Your task to perform on an android device: turn on data saver in the chrome app Image 0: 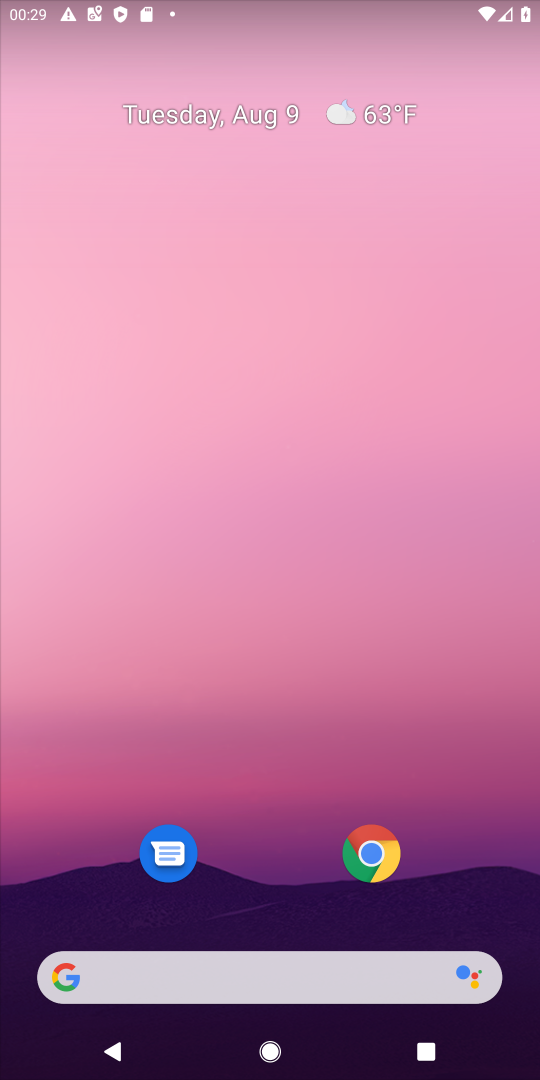
Step 0: press home button
Your task to perform on an android device: turn on data saver in the chrome app Image 1: 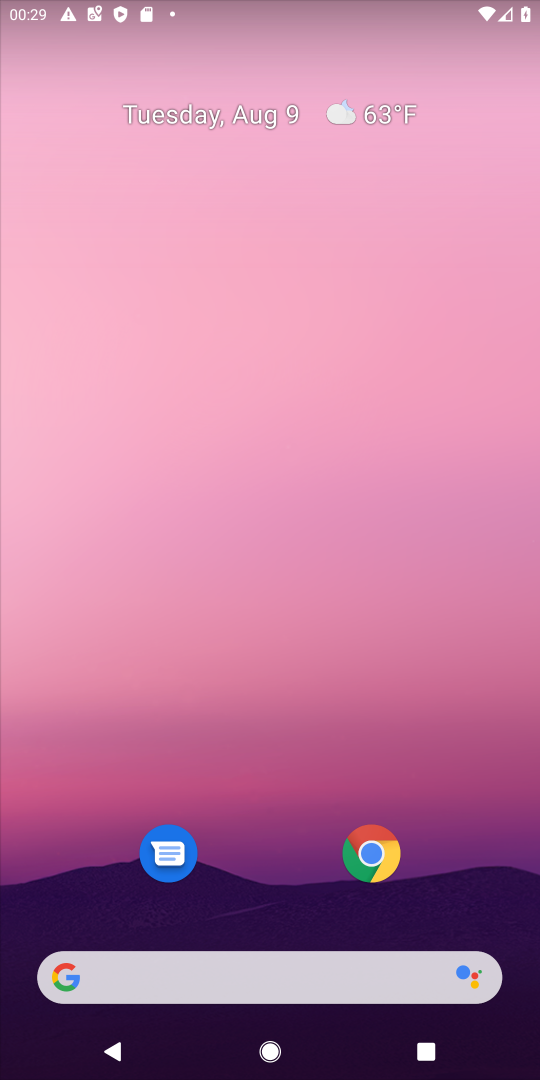
Step 1: click (369, 862)
Your task to perform on an android device: turn on data saver in the chrome app Image 2: 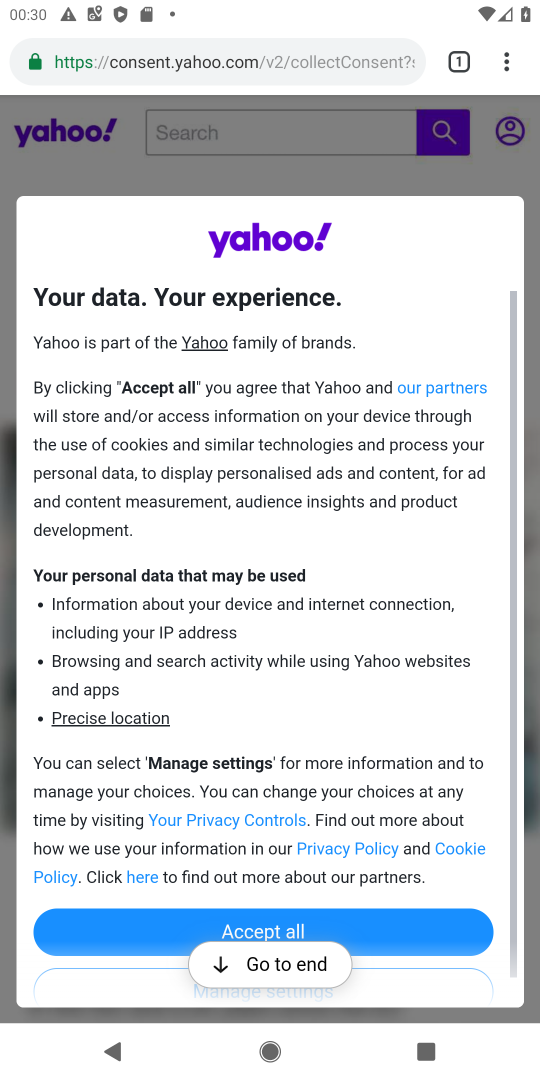
Step 2: click (504, 64)
Your task to perform on an android device: turn on data saver in the chrome app Image 3: 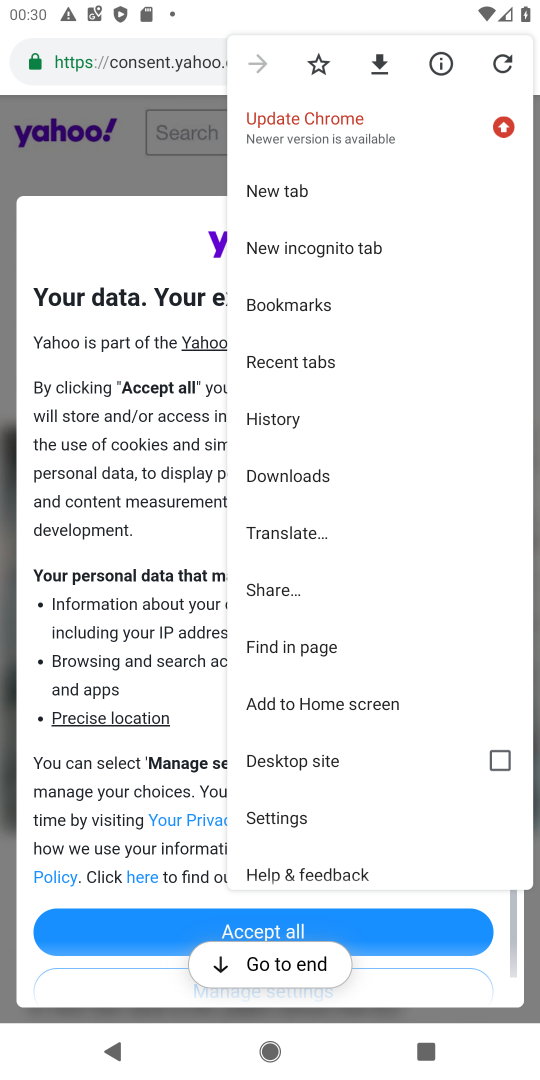
Step 3: click (307, 803)
Your task to perform on an android device: turn on data saver in the chrome app Image 4: 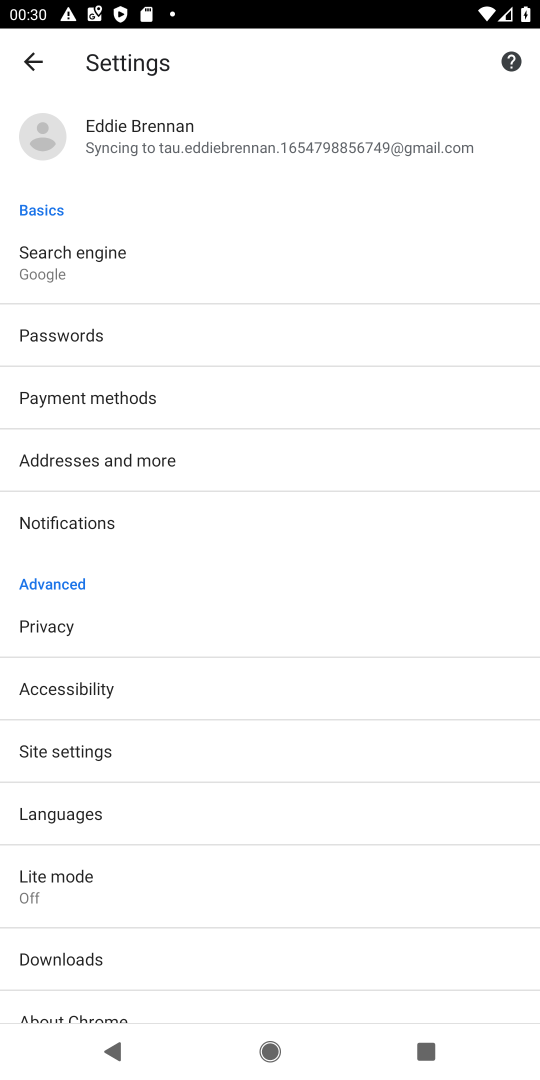
Step 4: click (134, 901)
Your task to perform on an android device: turn on data saver in the chrome app Image 5: 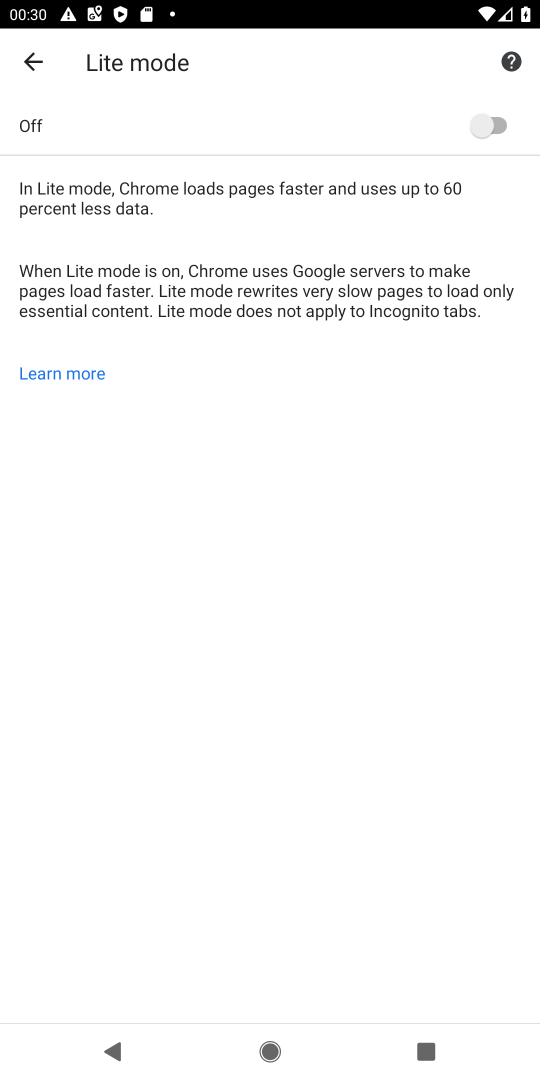
Step 5: click (503, 120)
Your task to perform on an android device: turn on data saver in the chrome app Image 6: 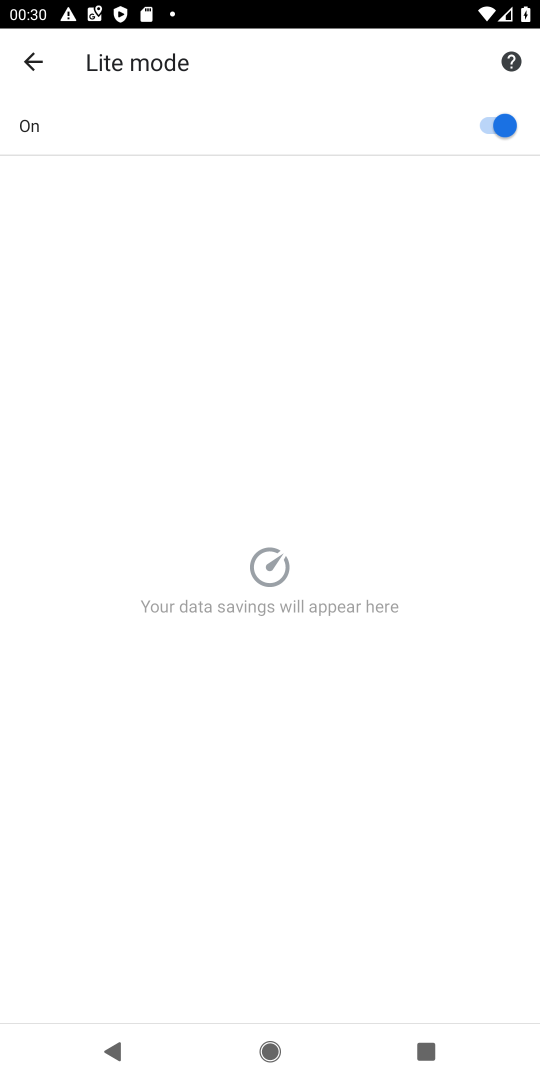
Step 6: task complete